Your task to perform on an android device: toggle notification dots Image 0: 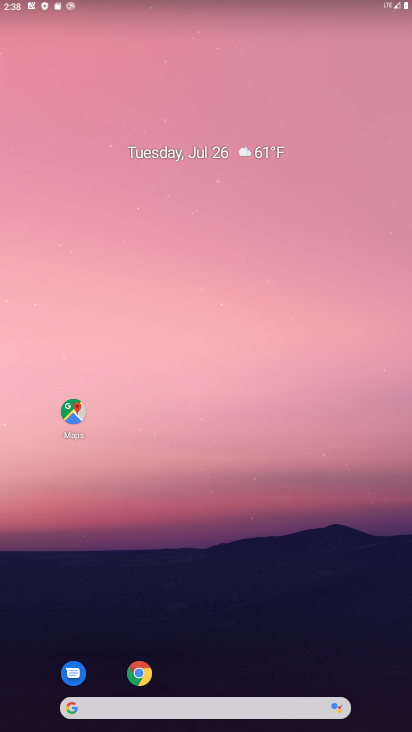
Step 0: drag from (198, 658) to (256, 6)
Your task to perform on an android device: toggle notification dots Image 1: 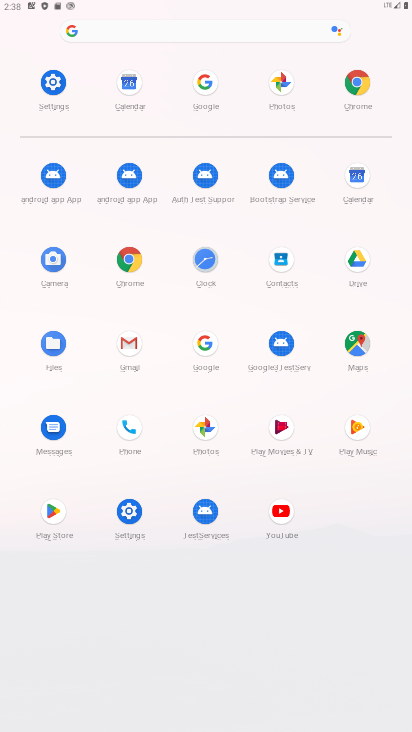
Step 1: click (126, 517)
Your task to perform on an android device: toggle notification dots Image 2: 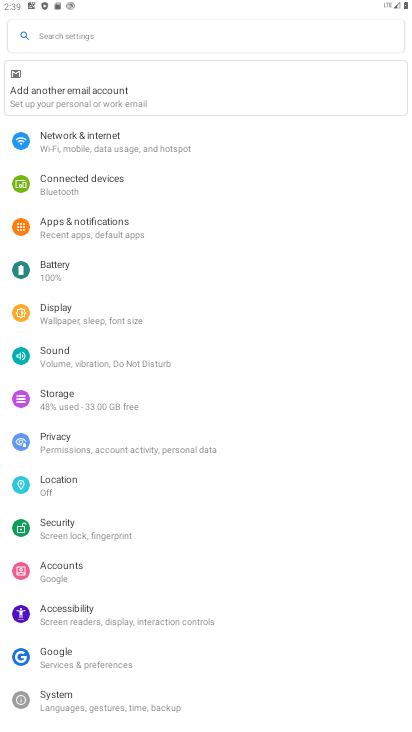
Step 2: click (83, 215)
Your task to perform on an android device: toggle notification dots Image 3: 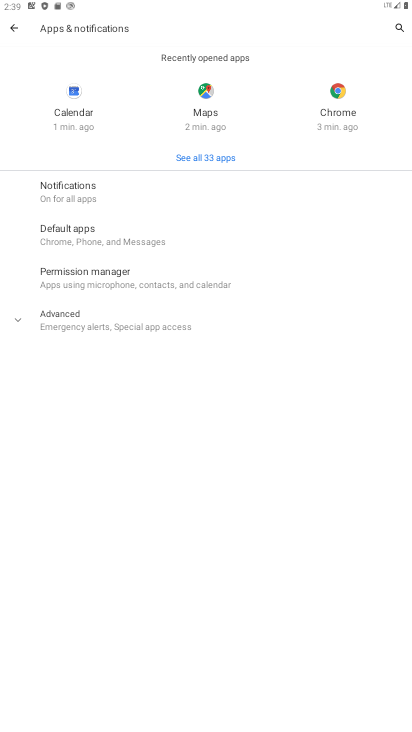
Step 3: click (133, 184)
Your task to perform on an android device: toggle notification dots Image 4: 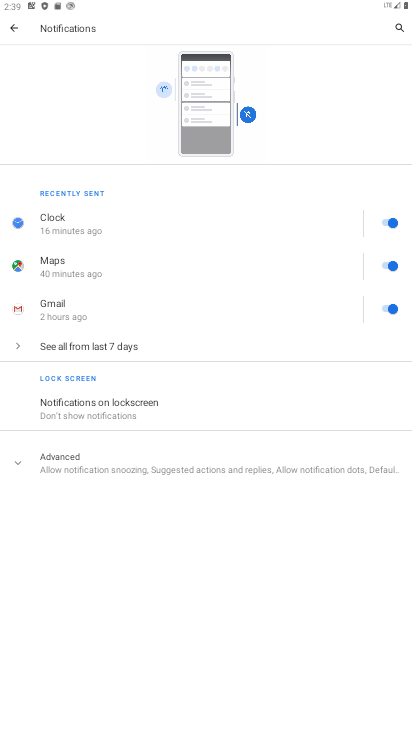
Step 4: click (56, 474)
Your task to perform on an android device: toggle notification dots Image 5: 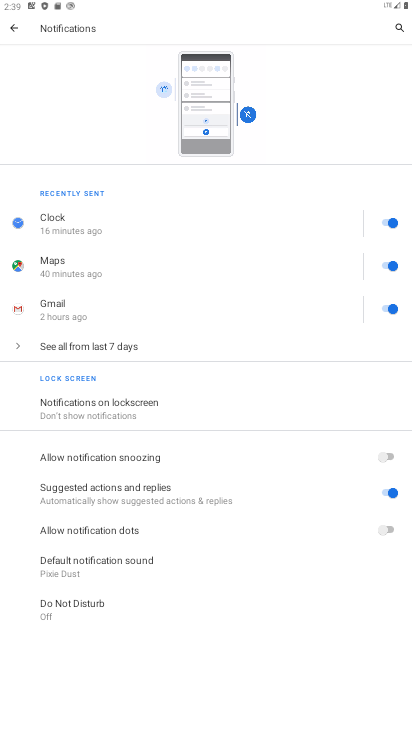
Step 5: click (318, 517)
Your task to perform on an android device: toggle notification dots Image 6: 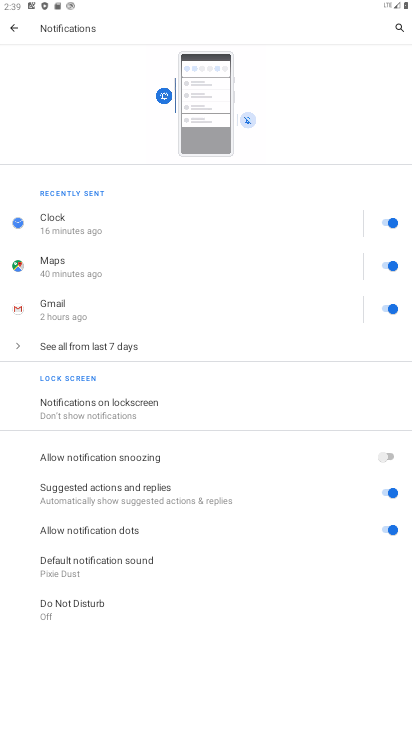
Step 6: task complete